Your task to perform on an android device: Clear the cart on costco. Search for "macbook pro" on costco, select the first entry, add it to the cart, then select checkout. Image 0: 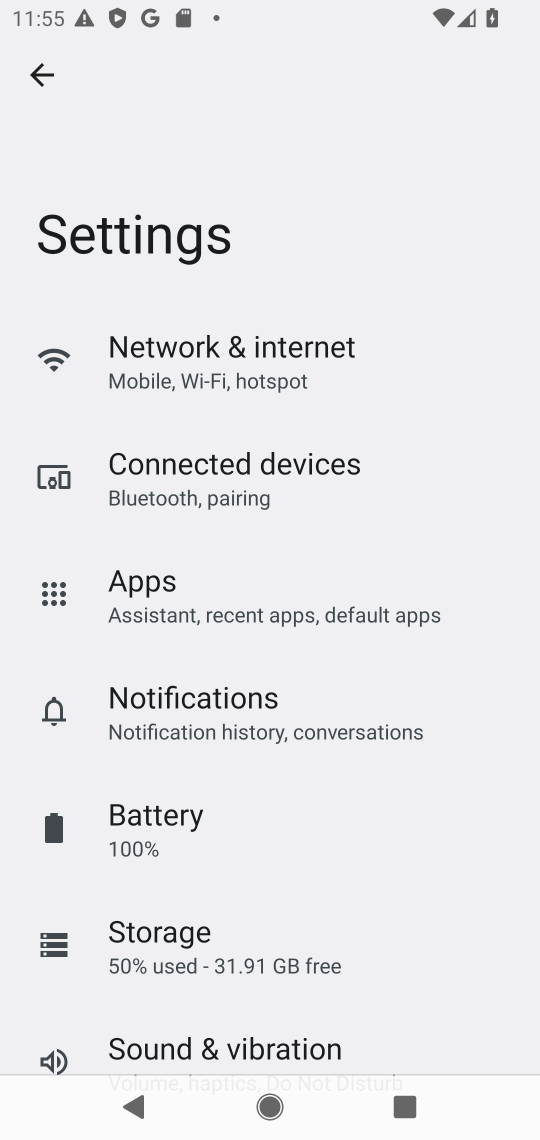
Step 0: press home button
Your task to perform on an android device: Clear the cart on costco. Search for "macbook pro" on costco, select the first entry, add it to the cart, then select checkout. Image 1: 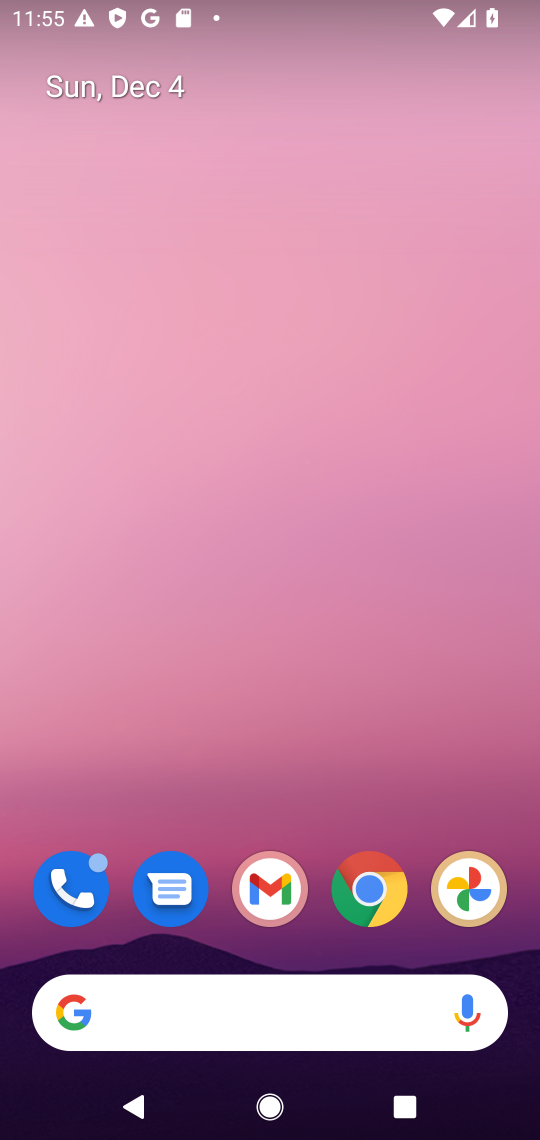
Step 1: click (377, 894)
Your task to perform on an android device: Clear the cart on costco. Search for "macbook pro" on costco, select the first entry, add it to the cart, then select checkout. Image 2: 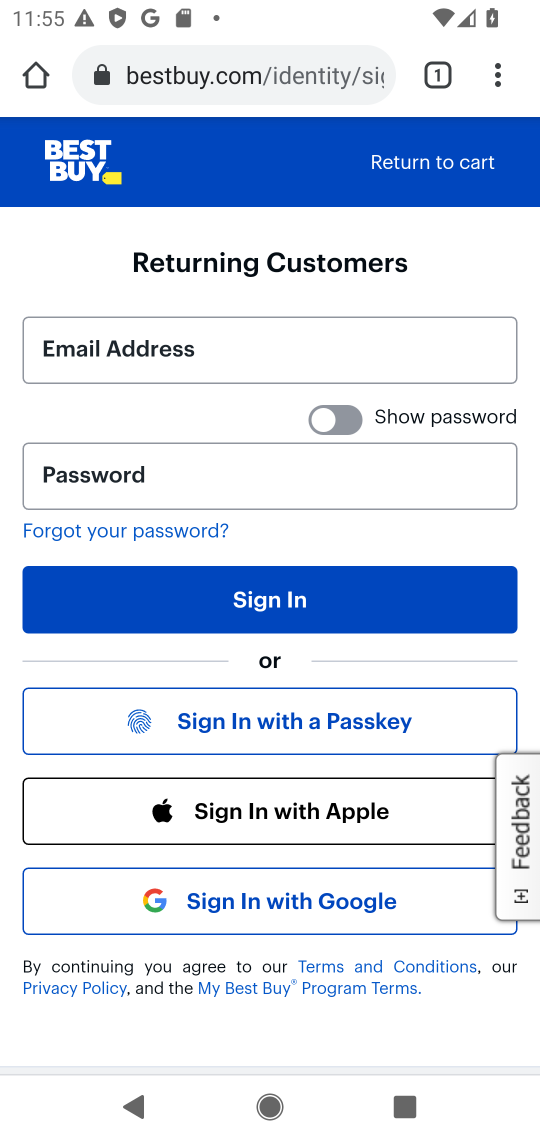
Step 2: click (317, 59)
Your task to perform on an android device: Clear the cart on costco. Search for "macbook pro" on costco, select the first entry, add it to the cart, then select checkout. Image 3: 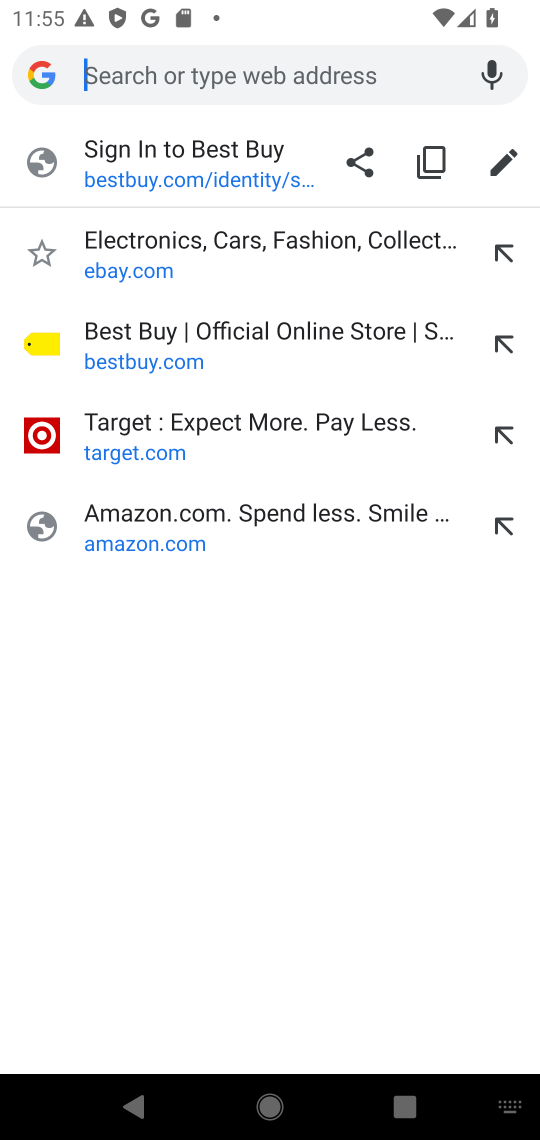
Step 3: type "costco"
Your task to perform on an android device: Clear the cart on costco. Search for "macbook pro" on costco, select the first entry, add it to the cart, then select checkout. Image 4: 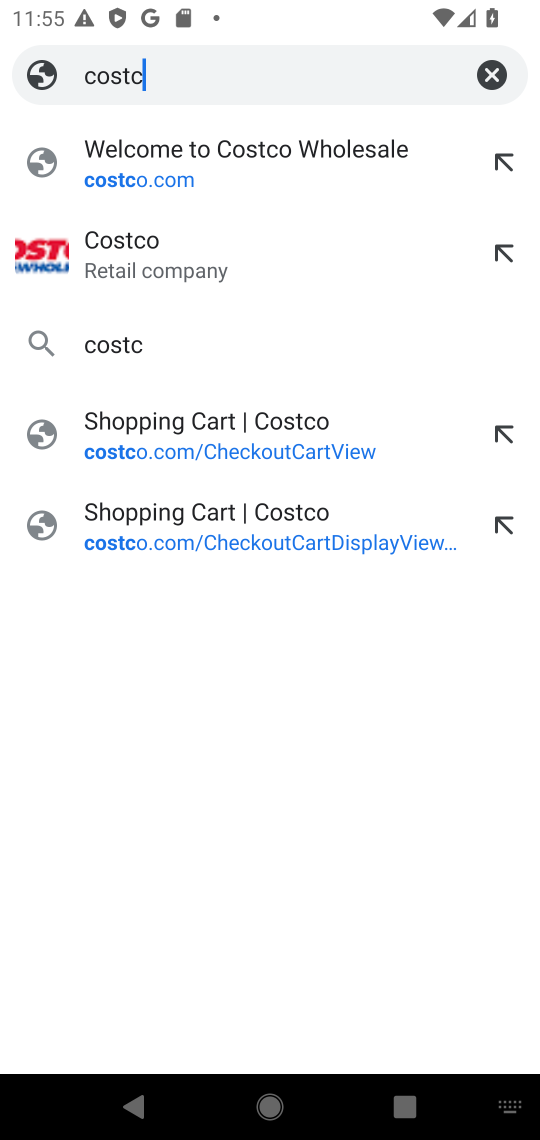
Step 4: press enter
Your task to perform on an android device: Clear the cart on costco. Search for "macbook pro" on costco, select the first entry, add it to the cart, then select checkout. Image 5: 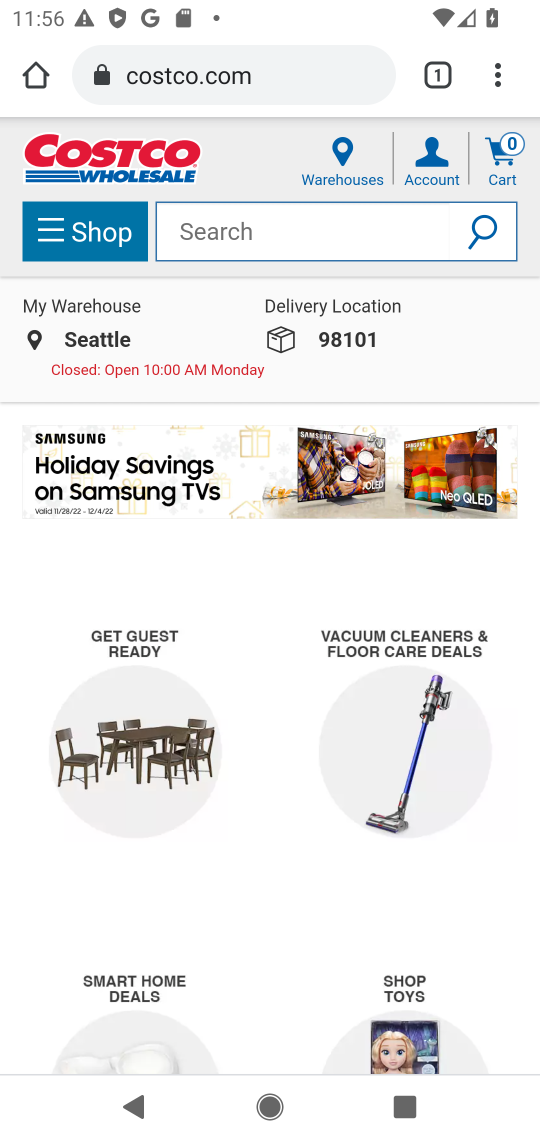
Step 5: click (275, 230)
Your task to perform on an android device: Clear the cart on costco. Search for "macbook pro" on costco, select the first entry, add it to the cart, then select checkout. Image 6: 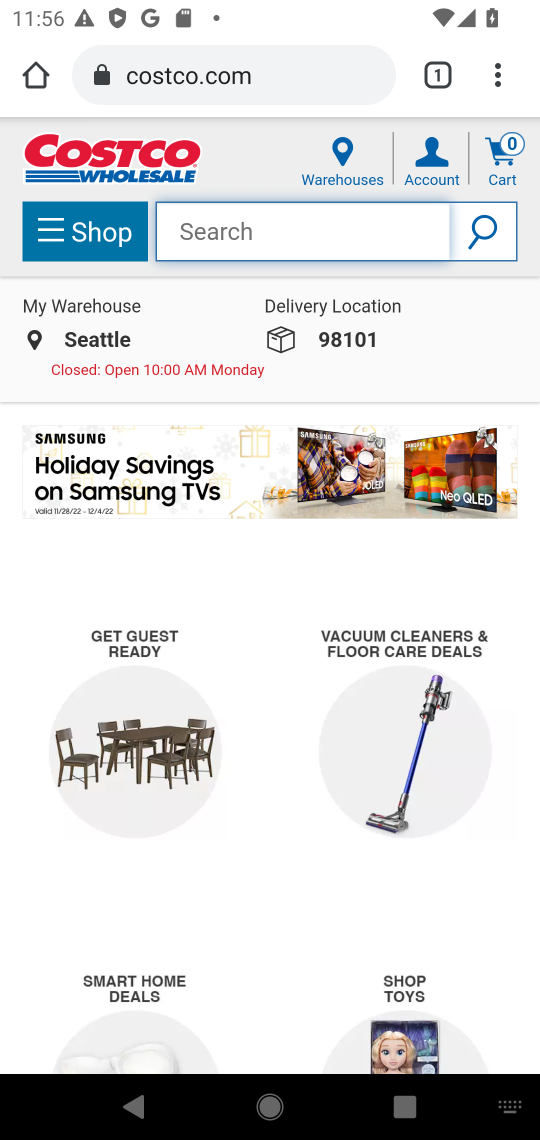
Step 6: press enter
Your task to perform on an android device: Clear the cart on costco. Search for "macbook pro" on costco, select the first entry, add it to the cart, then select checkout. Image 7: 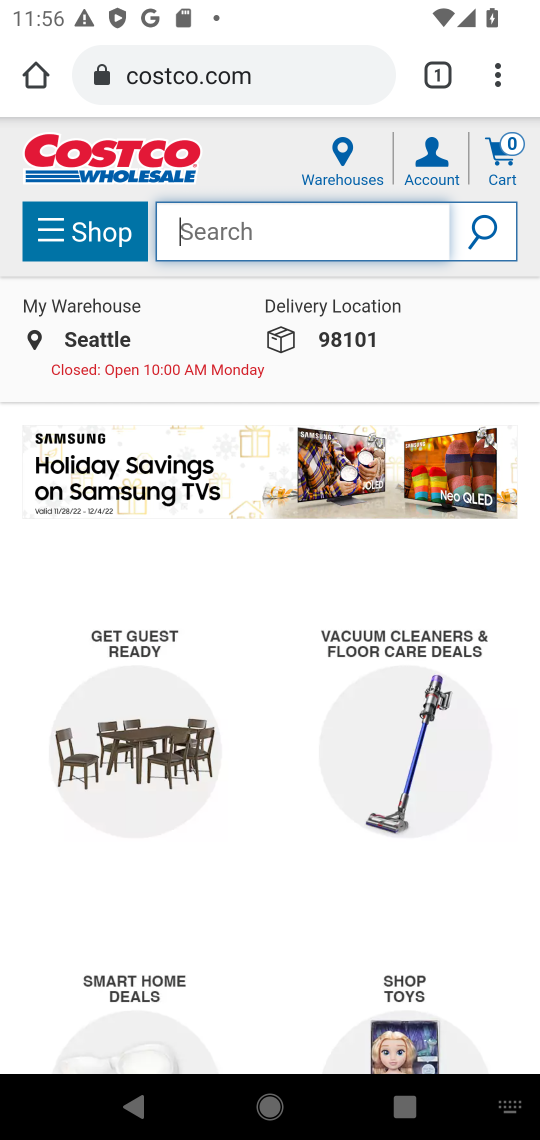
Step 7: type "macbook pro"
Your task to perform on an android device: Clear the cart on costco. Search for "macbook pro" on costco, select the first entry, add it to the cart, then select checkout. Image 8: 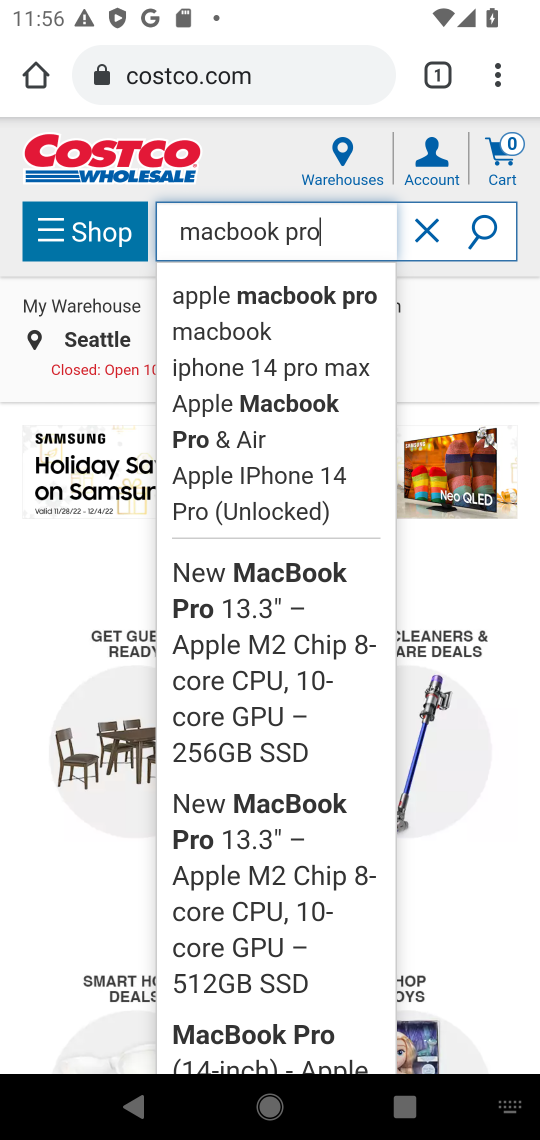
Step 8: click (477, 224)
Your task to perform on an android device: Clear the cart on costco. Search for "macbook pro" on costco, select the first entry, add it to the cart, then select checkout. Image 9: 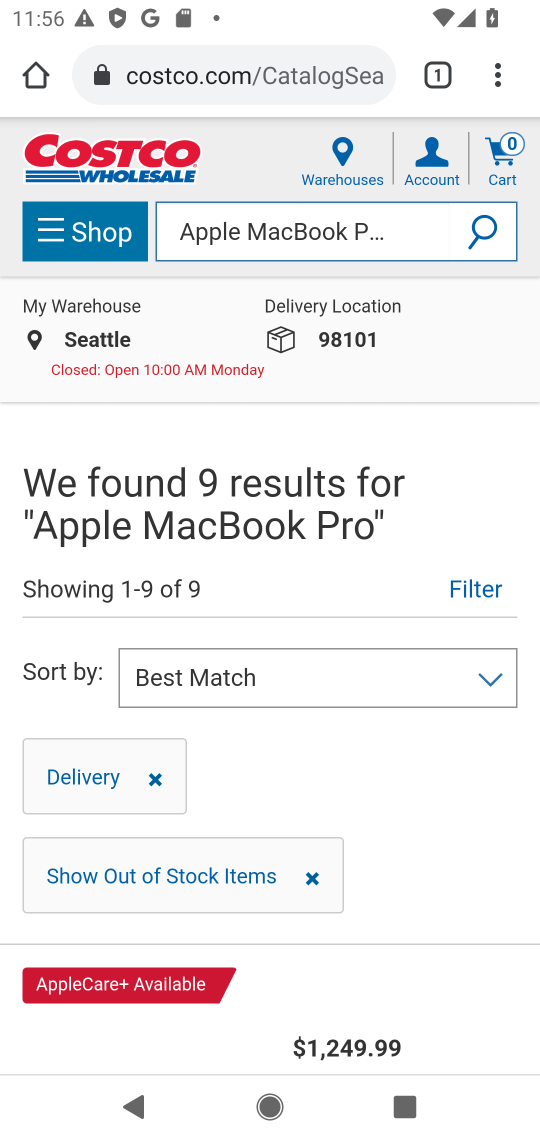
Step 9: drag from (391, 785) to (389, 267)
Your task to perform on an android device: Clear the cart on costco. Search for "macbook pro" on costco, select the first entry, add it to the cart, then select checkout. Image 10: 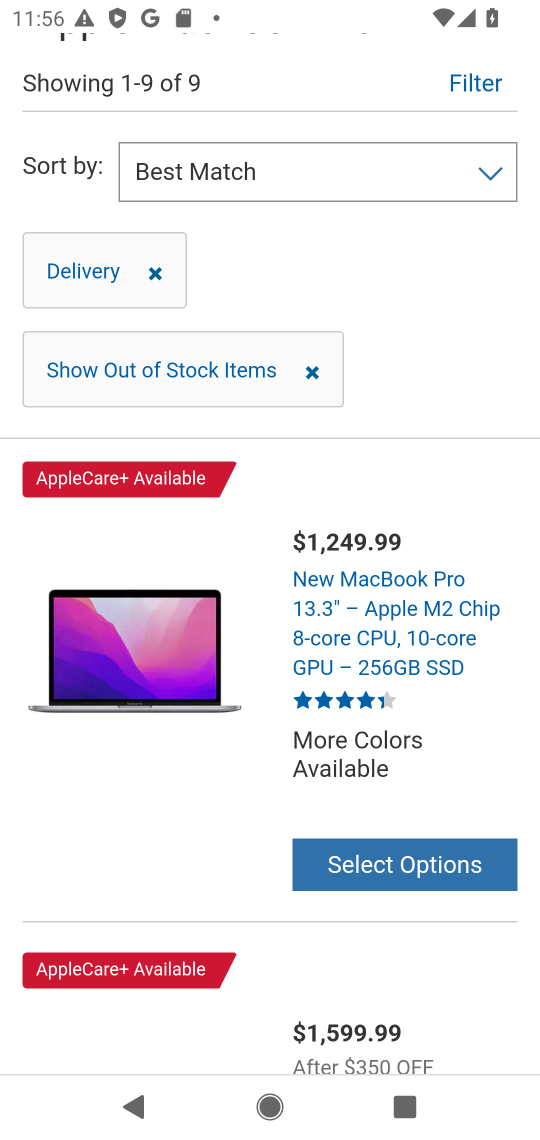
Step 10: click (73, 699)
Your task to perform on an android device: Clear the cart on costco. Search for "macbook pro" on costco, select the first entry, add it to the cart, then select checkout. Image 11: 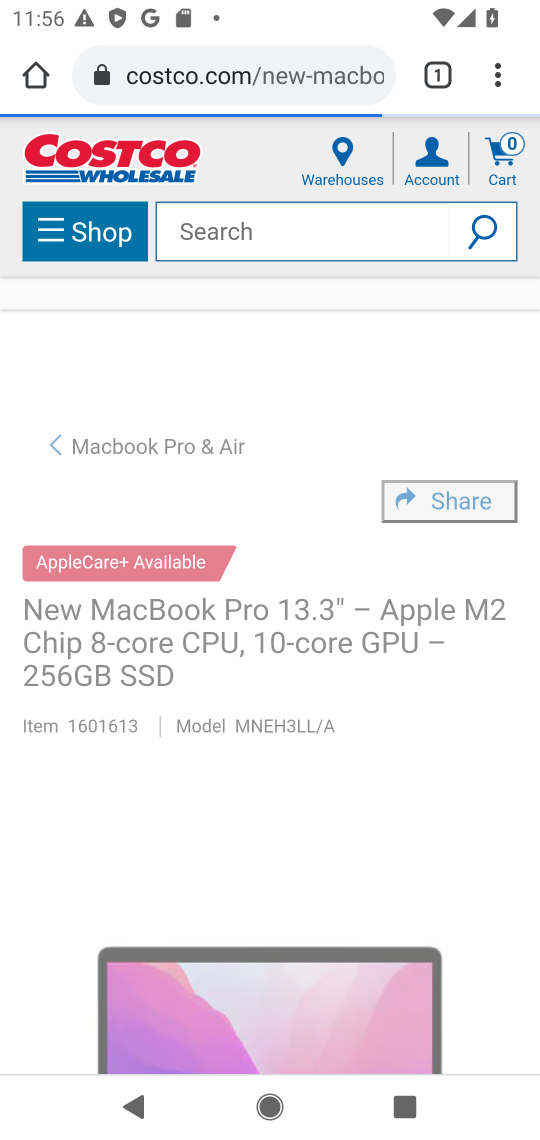
Step 11: drag from (399, 814) to (466, 232)
Your task to perform on an android device: Clear the cart on costco. Search for "macbook pro" on costco, select the first entry, add it to the cart, then select checkout. Image 12: 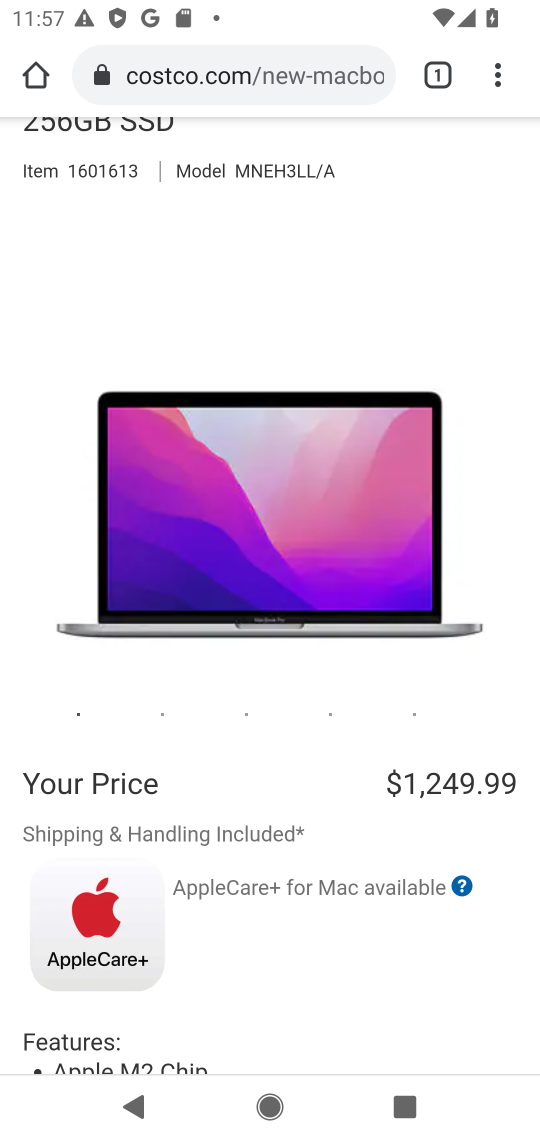
Step 12: drag from (397, 929) to (399, 210)
Your task to perform on an android device: Clear the cart on costco. Search for "macbook pro" on costco, select the first entry, add it to the cart, then select checkout. Image 13: 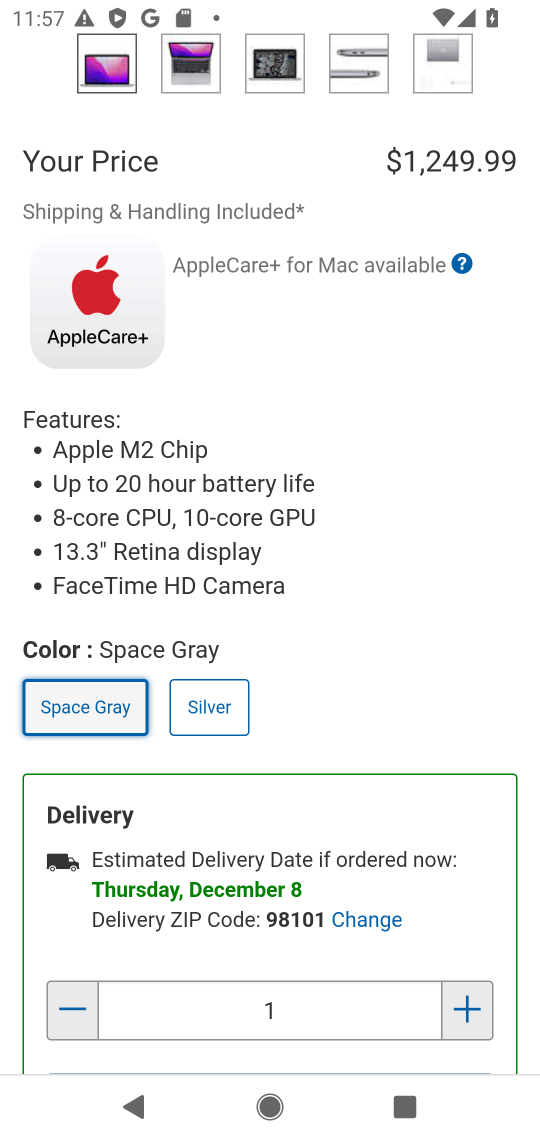
Step 13: drag from (451, 540) to (440, 249)
Your task to perform on an android device: Clear the cart on costco. Search for "macbook pro" on costco, select the first entry, add it to the cart, then select checkout. Image 14: 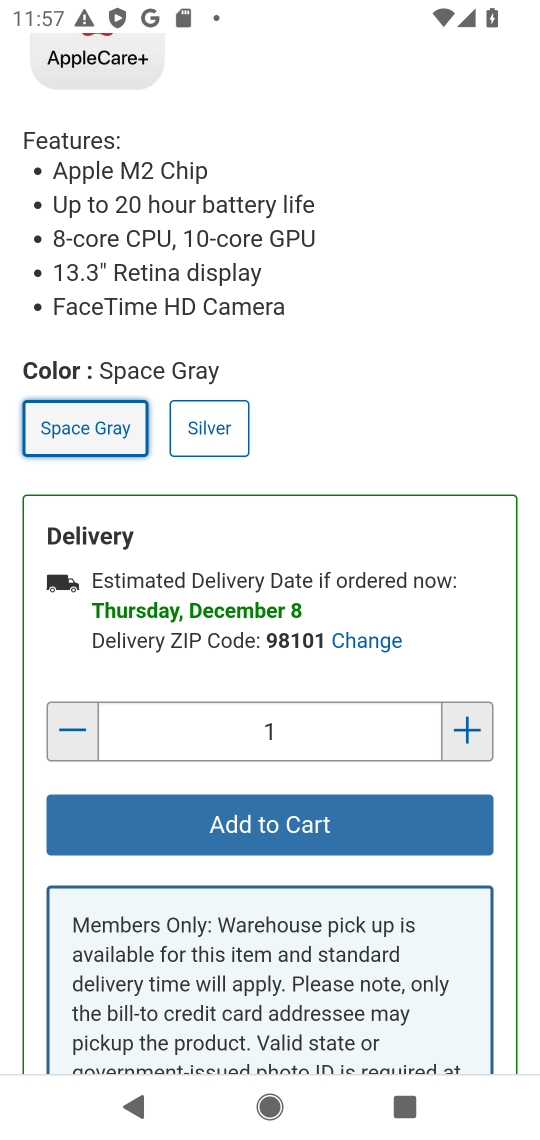
Step 14: click (296, 837)
Your task to perform on an android device: Clear the cart on costco. Search for "macbook pro" on costco, select the first entry, add it to the cart, then select checkout. Image 15: 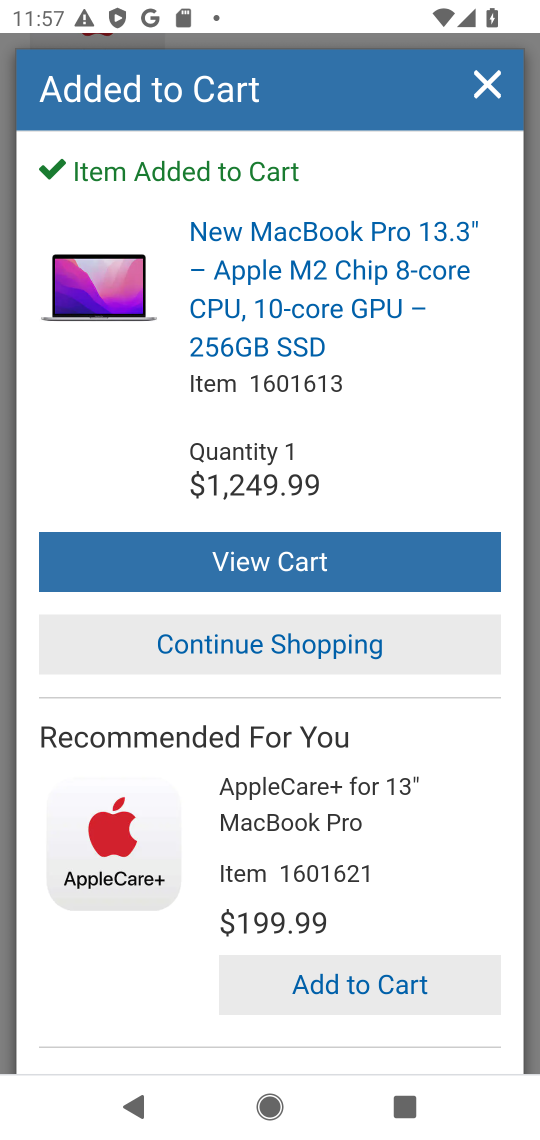
Step 15: click (318, 564)
Your task to perform on an android device: Clear the cart on costco. Search for "macbook pro" on costco, select the first entry, add it to the cart, then select checkout. Image 16: 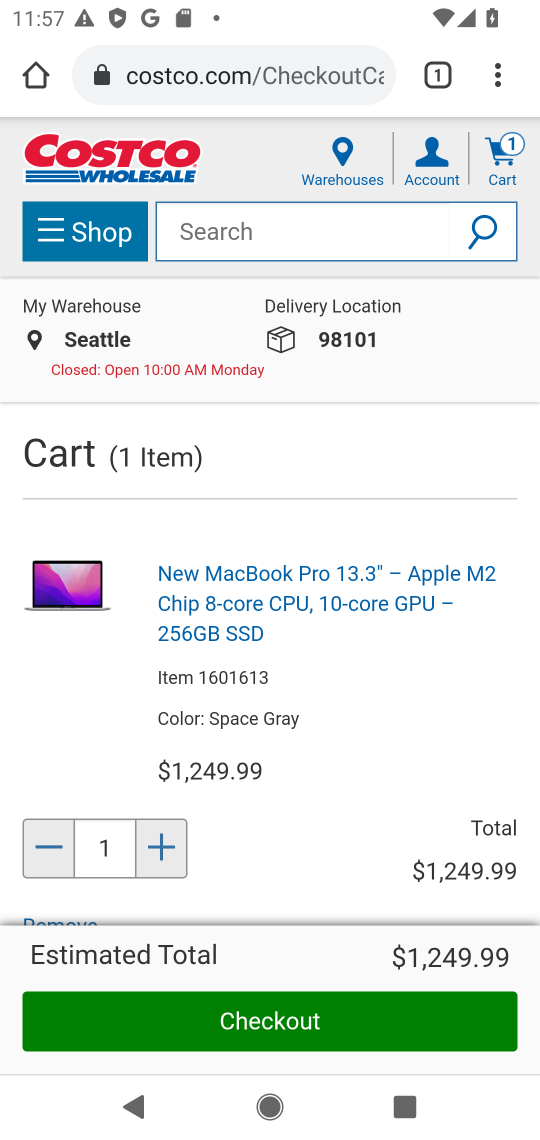
Step 16: click (288, 1022)
Your task to perform on an android device: Clear the cart on costco. Search for "macbook pro" on costco, select the first entry, add it to the cart, then select checkout. Image 17: 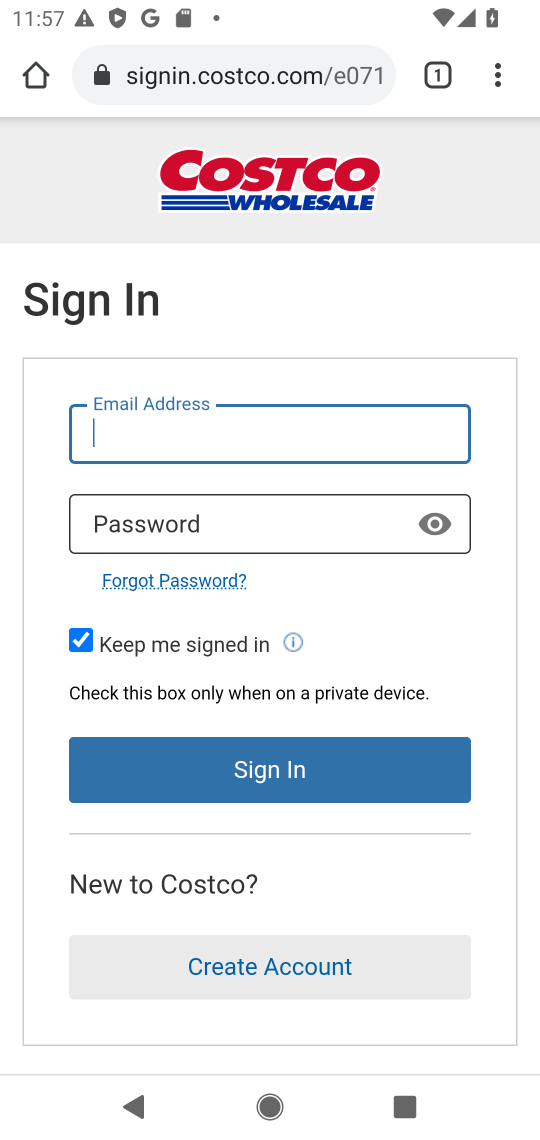
Step 17: task complete